Your task to perform on an android device: check google app version Image 0: 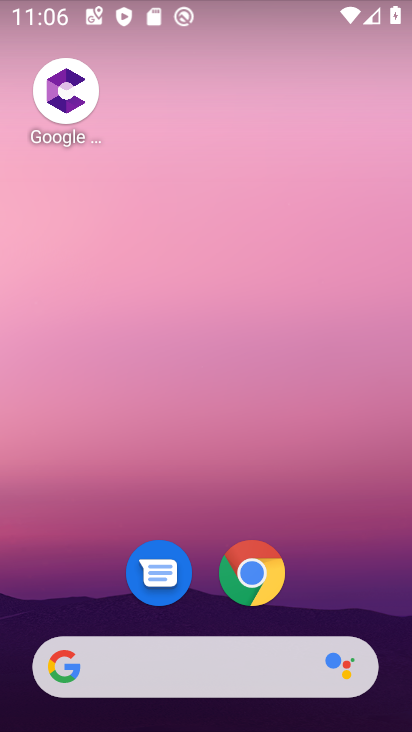
Step 0: drag from (320, 459) to (286, 140)
Your task to perform on an android device: check google app version Image 1: 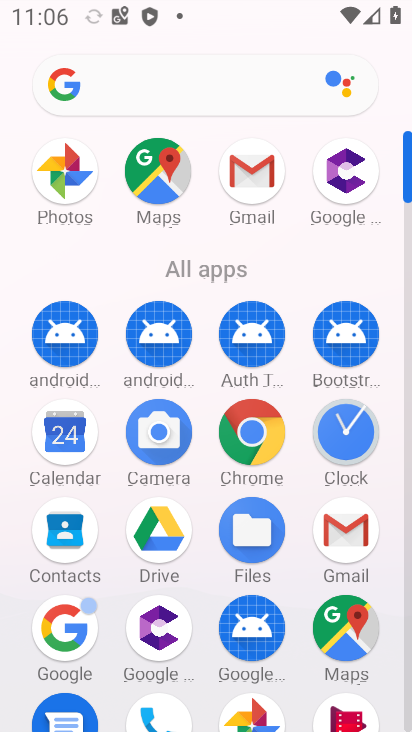
Step 1: drag from (209, 516) to (199, 167)
Your task to perform on an android device: check google app version Image 2: 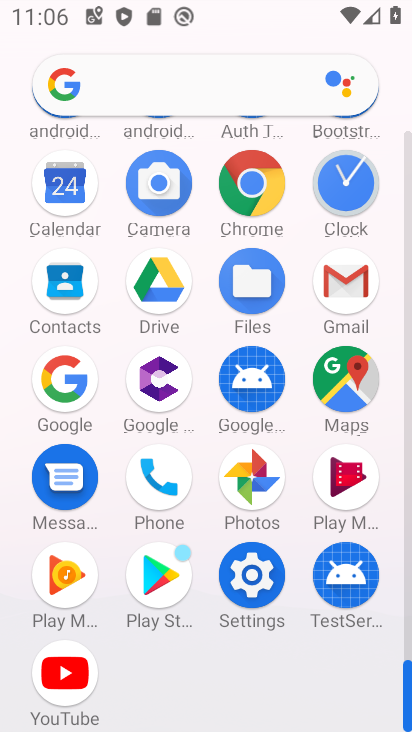
Step 2: click (69, 371)
Your task to perform on an android device: check google app version Image 3: 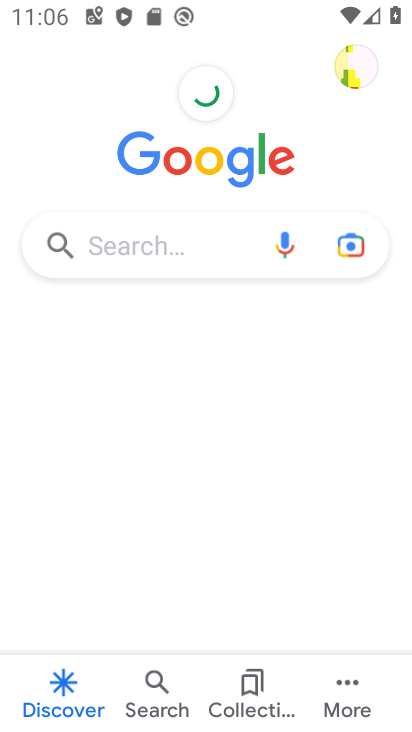
Step 3: click (348, 686)
Your task to perform on an android device: check google app version Image 4: 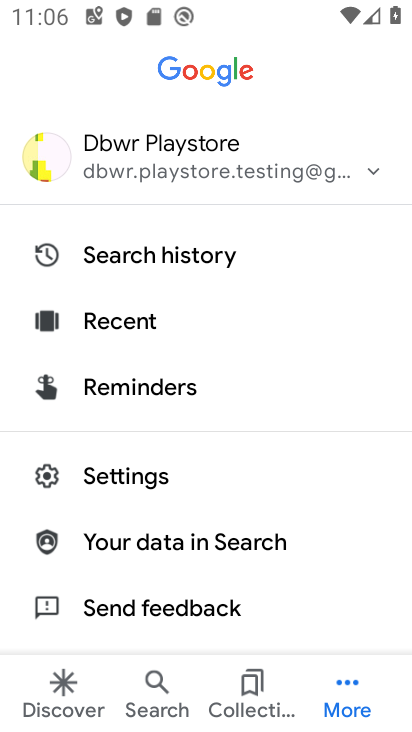
Step 4: click (344, 673)
Your task to perform on an android device: check google app version Image 5: 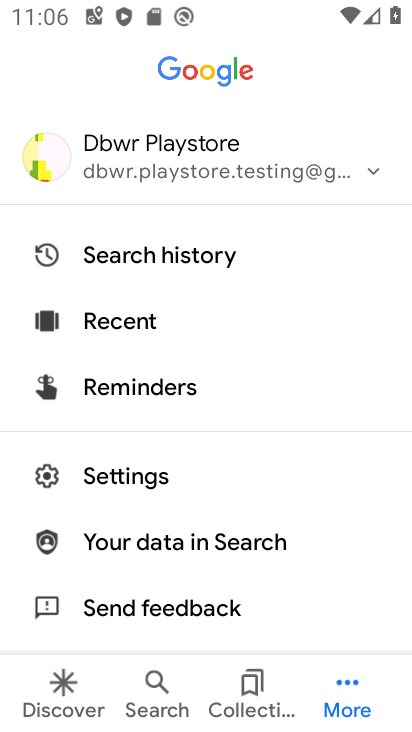
Step 5: click (161, 477)
Your task to perform on an android device: check google app version Image 6: 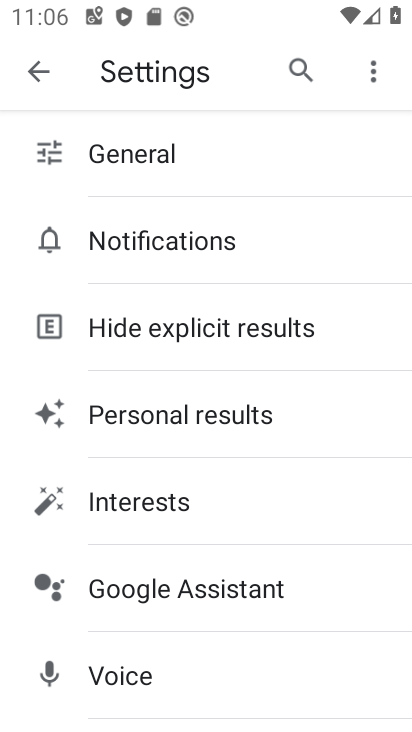
Step 6: drag from (228, 561) to (249, 298)
Your task to perform on an android device: check google app version Image 7: 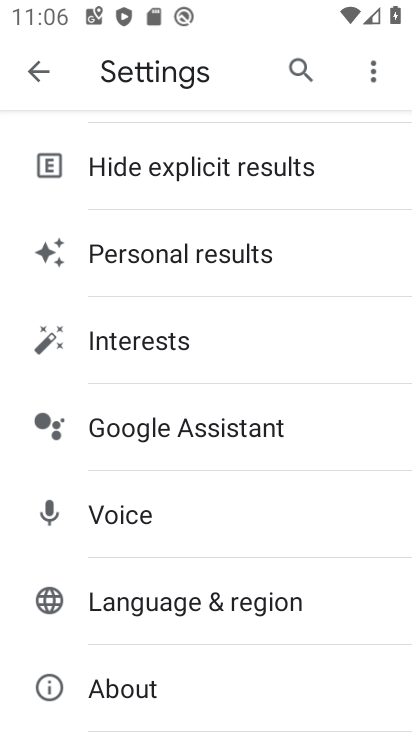
Step 7: click (202, 681)
Your task to perform on an android device: check google app version Image 8: 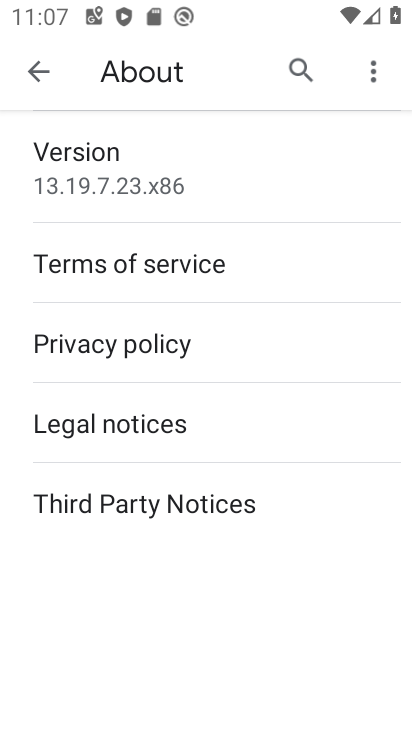
Step 8: task complete